Your task to perform on an android device: change the clock display to digital Image 0: 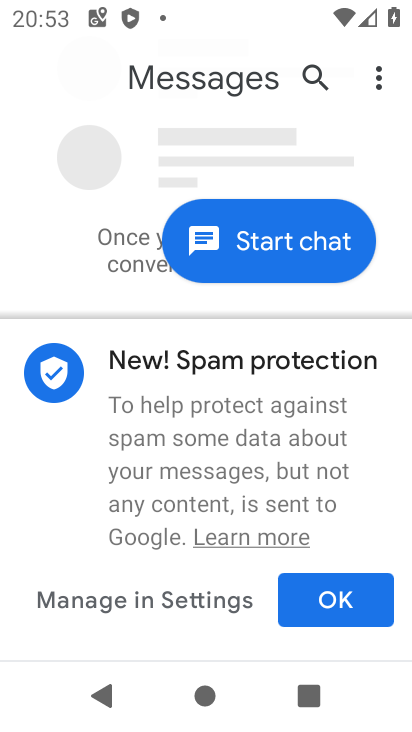
Step 0: press home button
Your task to perform on an android device: change the clock display to digital Image 1: 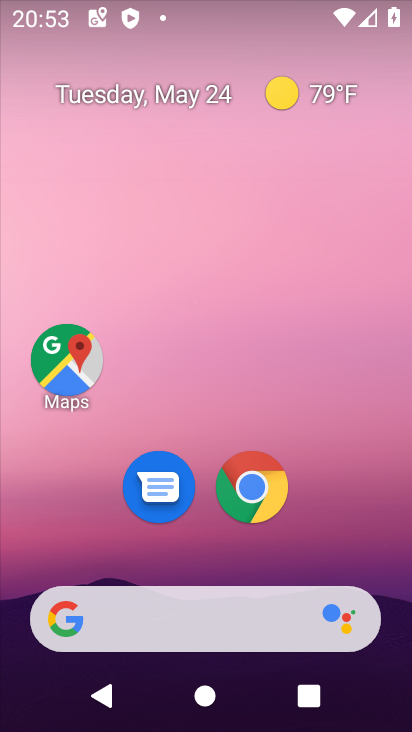
Step 1: drag from (359, 547) to (308, 39)
Your task to perform on an android device: change the clock display to digital Image 2: 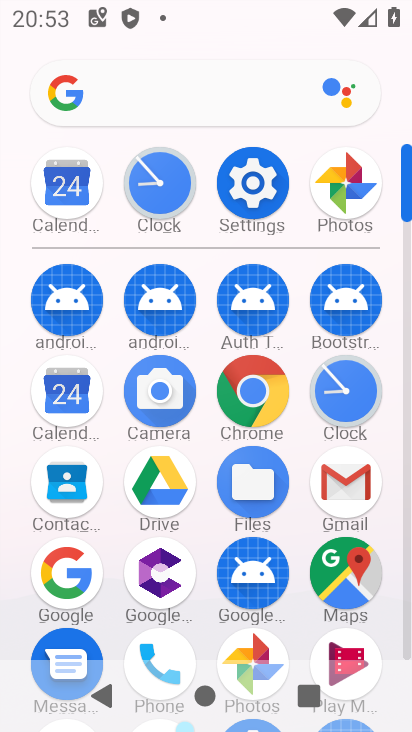
Step 2: click (341, 411)
Your task to perform on an android device: change the clock display to digital Image 3: 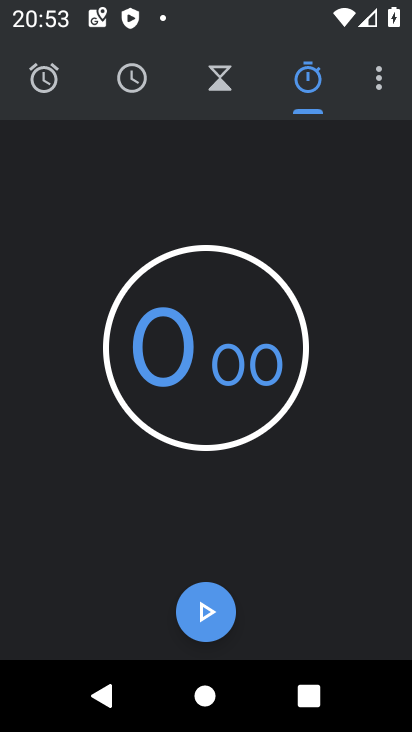
Step 3: click (384, 76)
Your task to perform on an android device: change the clock display to digital Image 4: 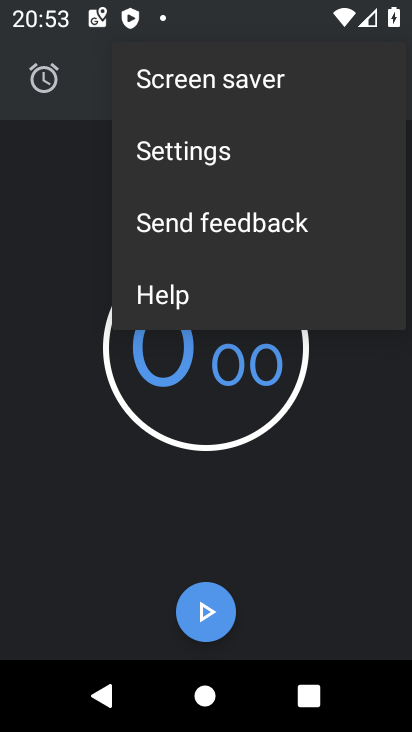
Step 4: click (342, 140)
Your task to perform on an android device: change the clock display to digital Image 5: 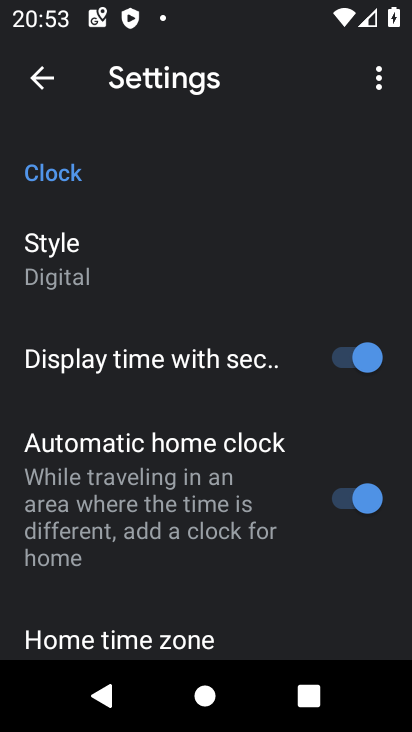
Step 5: click (89, 282)
Your task to perform on an android device: change the clock display to digital Image 6: 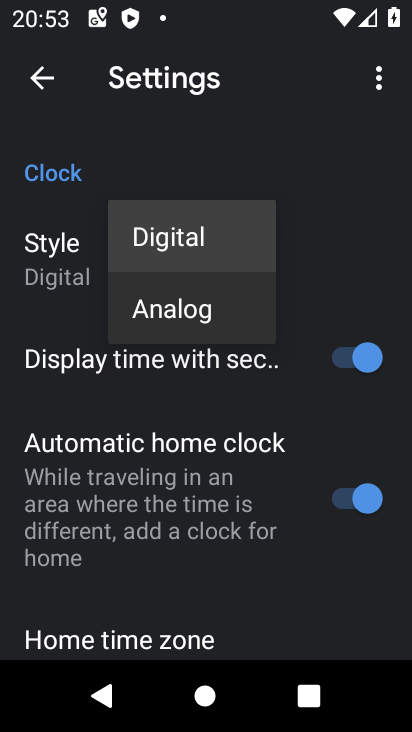
Step 6: click (175, 245)
Your task to perform on an android device: change the clock display to digital Image 7: 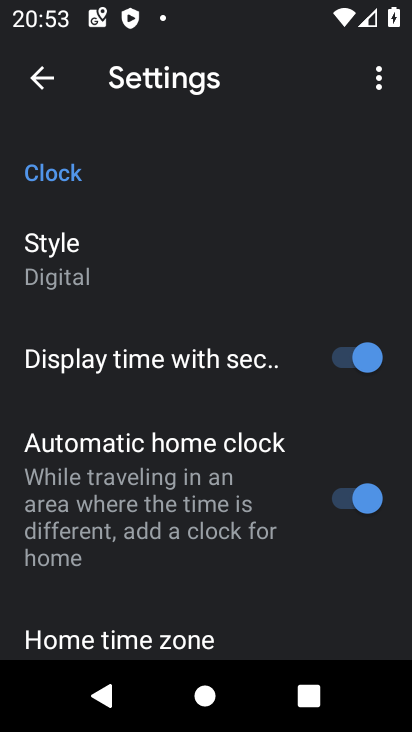
Step 7: task complete